Your task to perform on an android device: open a bookmark in the chrome app Image 0: 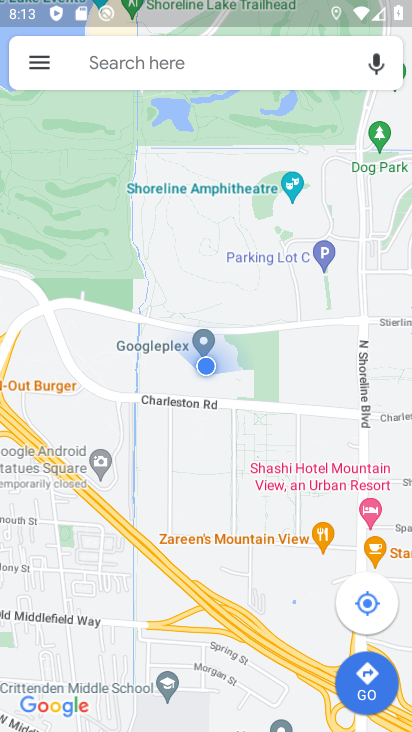
Step 0: press back button
Your task to perform on an android device: open a bookmark in the chrome app Image 1: 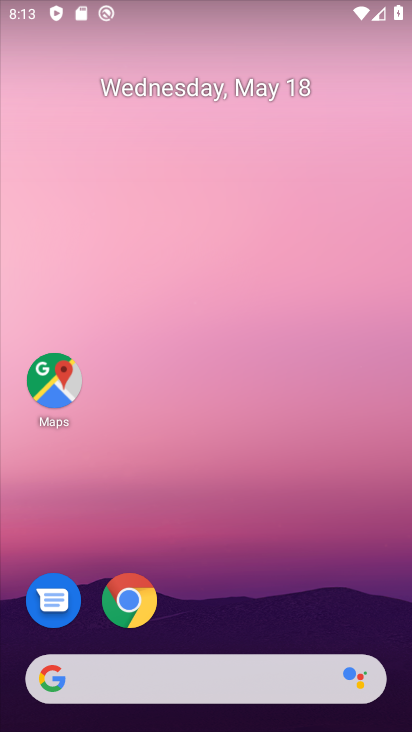
Step 1: click (145, 600)
Your task to perform on an android device: open a bookmark in the chrome app Image 2: 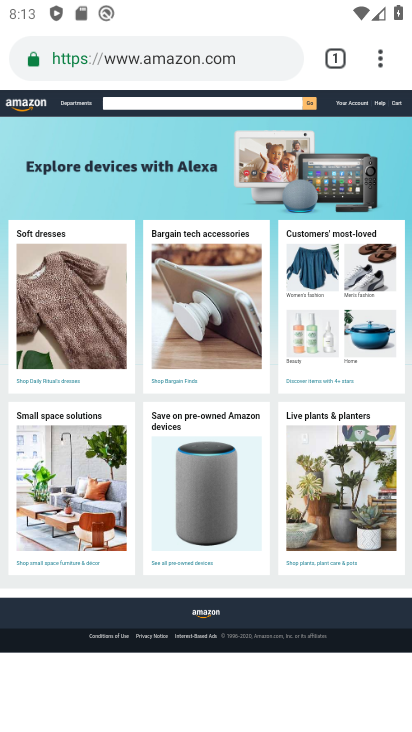
Step 2: drag from (376, 58) to (228, 217)
Your task to perform on an android device: open a bookmark in the chrome app Image 3: 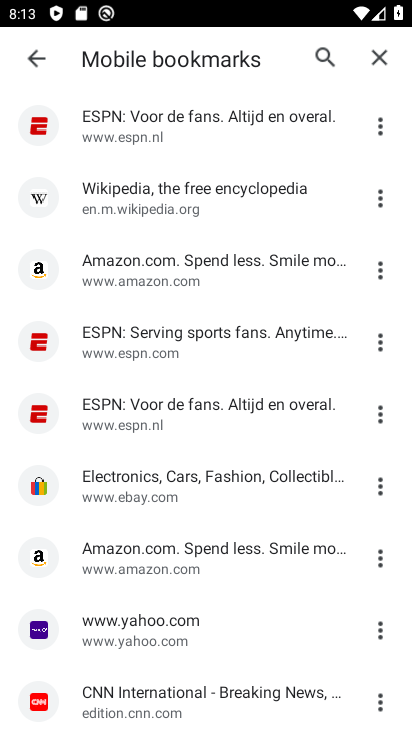
Step 3: click (157, 271)
Your task to perform on an android device: open a bookmark in the chrome app Image 4: 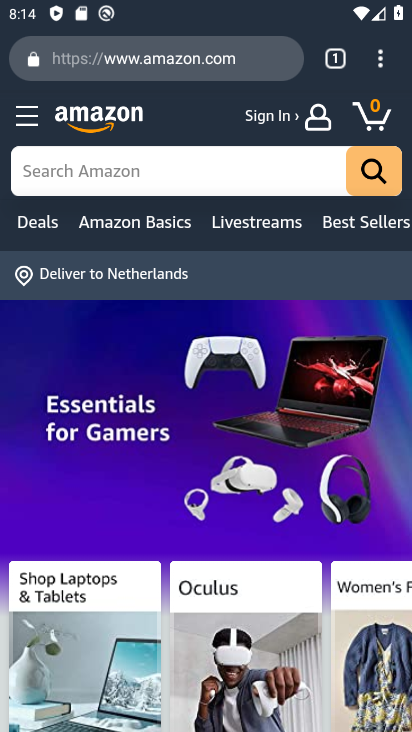
Step 4: task complete